Your task to perform on an android device: Open accessibility settings Image 0: 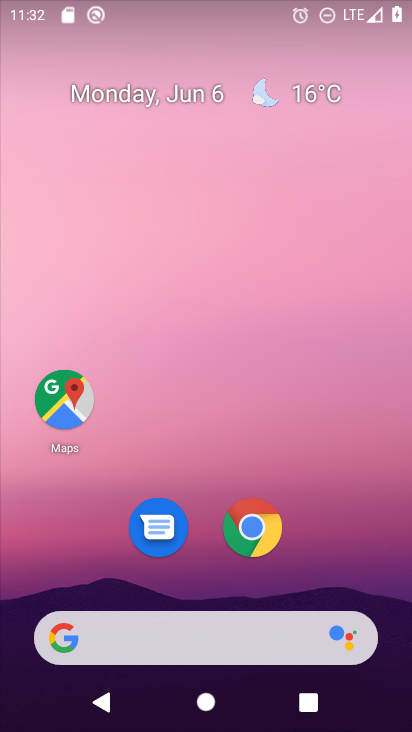
Step 0: drag from (373, 548) to (348, 242)
Your task to perform on an android device: Open accessibility settings Image 1: 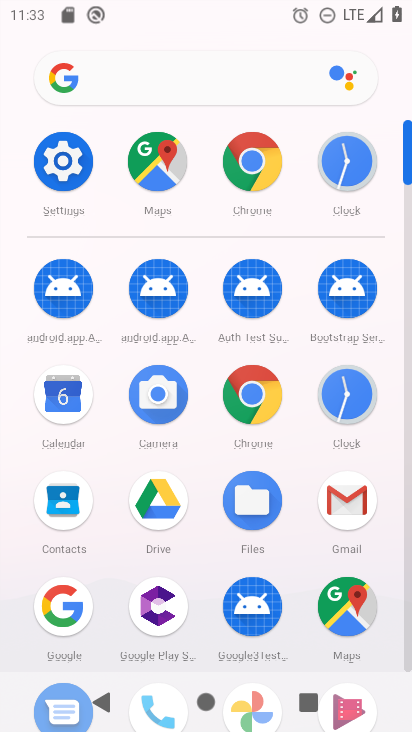
Step 1: click (68, 169)
Your task to perform on an android device: Open accessibility settings Image 2: 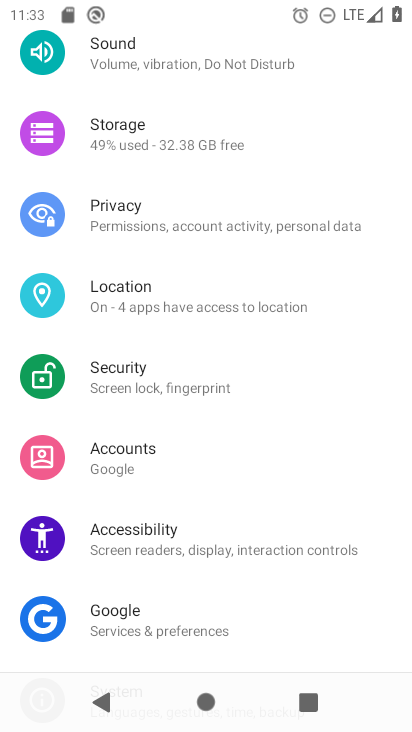
Step 2: drag from (336, 495) to (335, 324)
Your task to perform on an android device: Open accessibility settings Image 3: 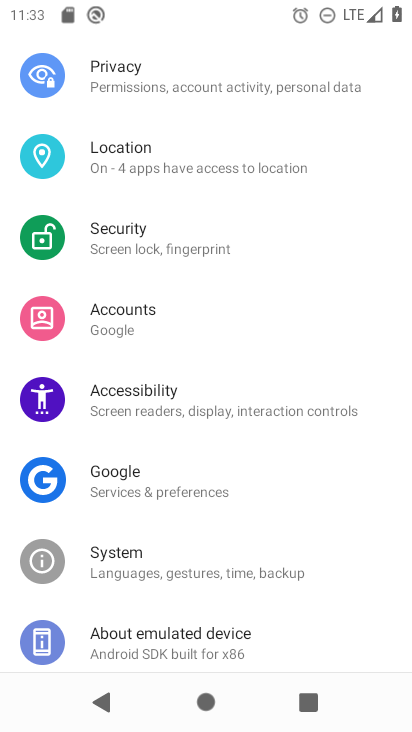
Step 3: drag from (345, 522) to (350, 357)
Your task to perform on an android device: Open accessibility settings Image 4: 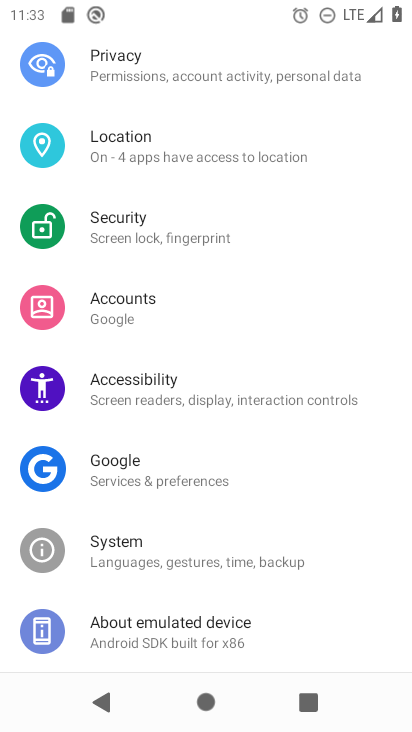
Step 4: drag from (344, 558) to (343, 315)
Your task to perform on an android device: Open accessibility settings Image 5: 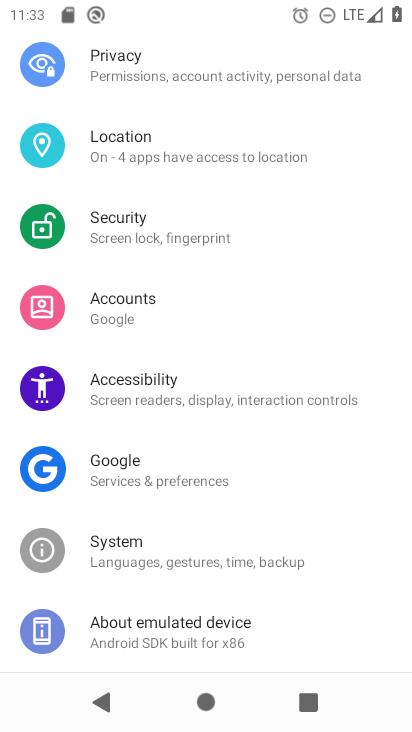
Step 5: drag from (356, 555) to (351, 391)
Your task to perform on an android device: Open accessibility settings Image 6: 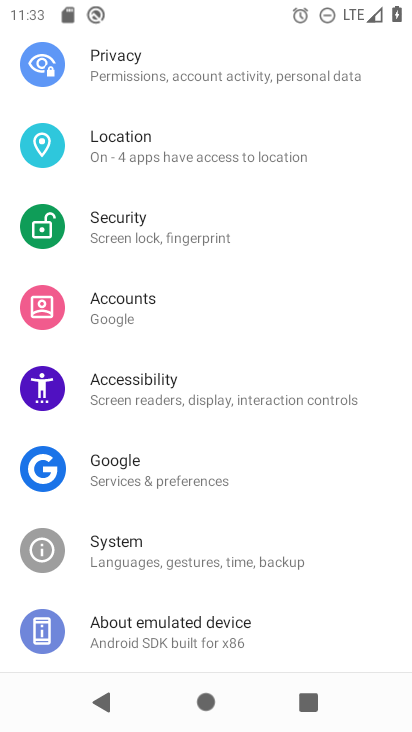
Step 6: drag from (325, 484) to (315, 321)
Your task to perform on an android device: Open accessibility settings Image 7: 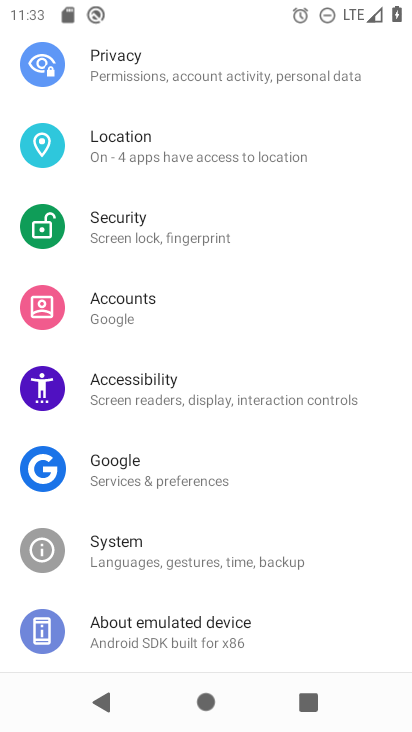
Step 7: click (260, 400)
Your task to perform on an android device: Open accessibility settings Image 8: 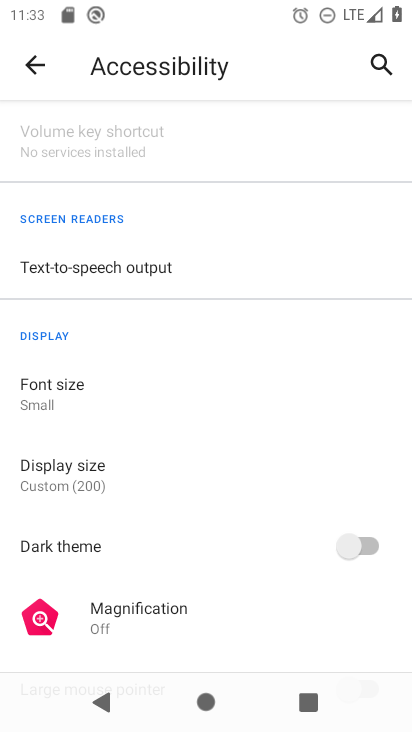
Step 8: task complete